Your task to perform on an android device: toggle wifi Image 0: 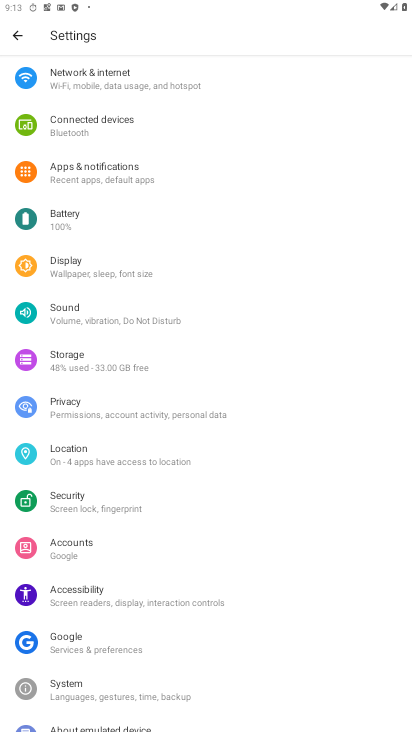
Step 0: press home button
Your task to perform on an android device: toggle wifi Image 1: 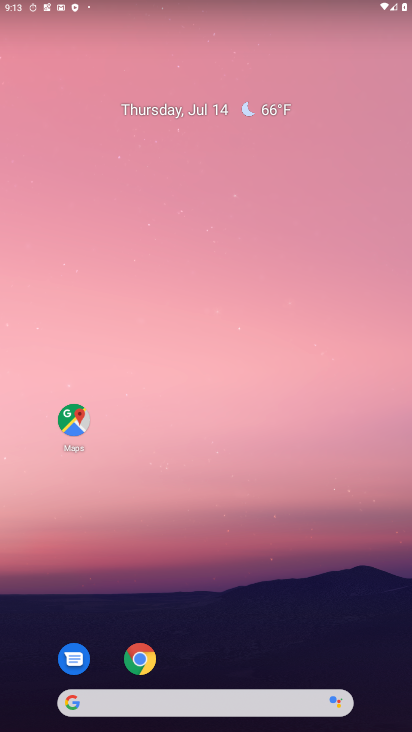
Step 1: drag from (256, 582) to (193, 0)
Your task to perform on an android device: toggle wifi Image 2: 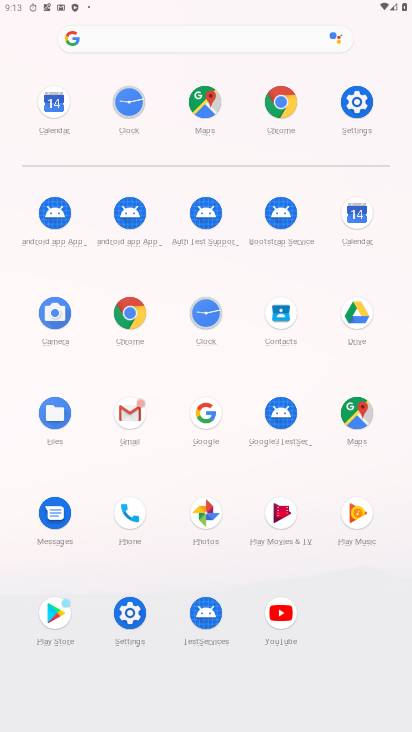
Step 2: click (352, 106)
Your task to perform on an android device: toggle wifi Image 3: 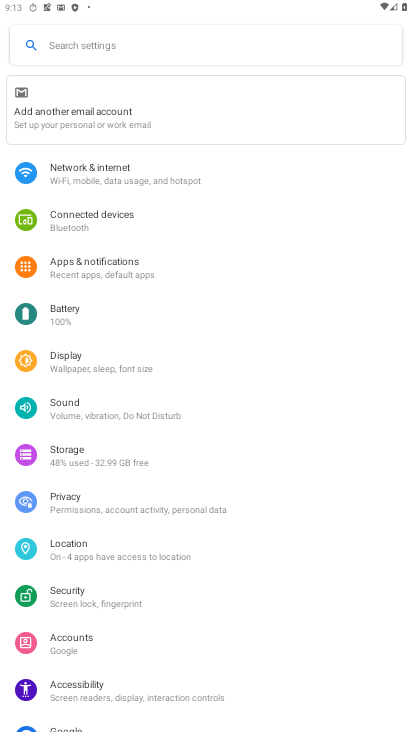
Step 3: click (125, 178)
Your task to perform on an android device: toggle wifi Image 4: 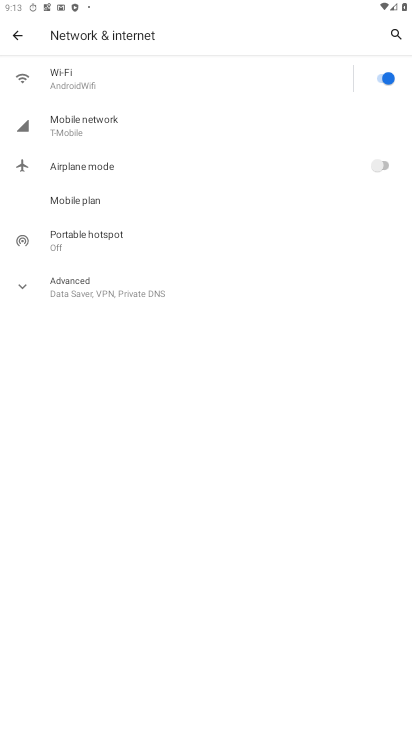
Step 4: click (377, 75)
Your task to perform on an android device: toggle wifi Image 5: 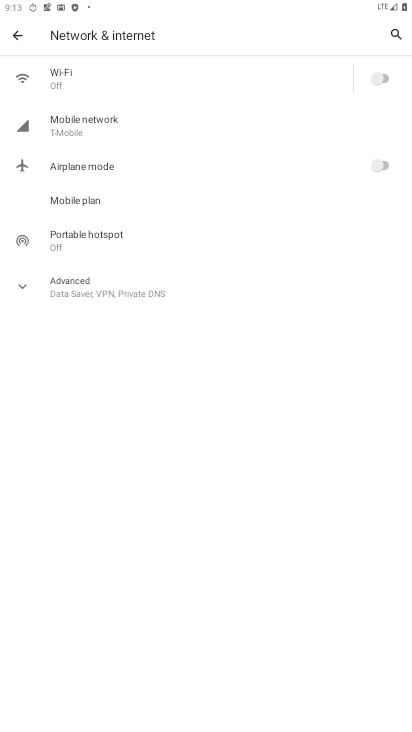
Step 5: task complete